Your task to perform on an android device: What's the weather going to be this weekend? Image 0: 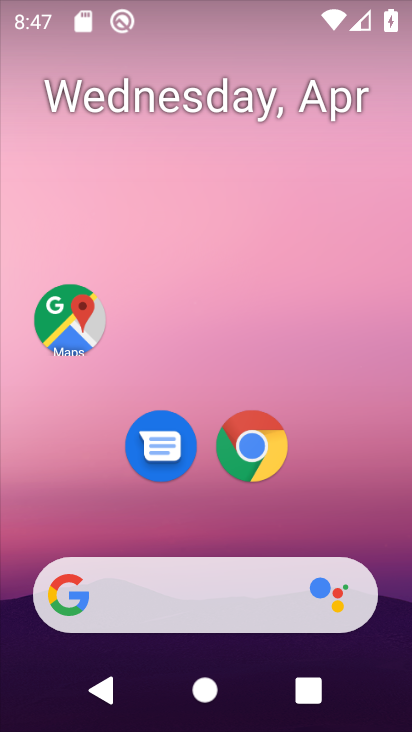
Step 0: drag from (375, 508) to (352, 178)
Your task to perform on an android device: What's the weather going to be this weekend? Image 1: 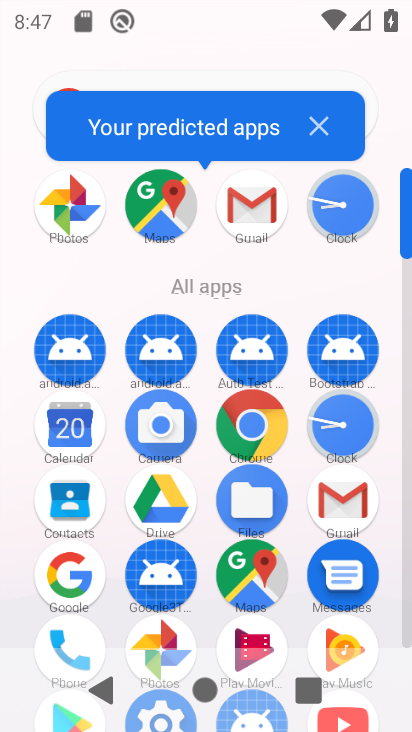
Step 1: click (259, 437)
Your task to perform on an android device: What's the weather going to be this weekend? Image 2: 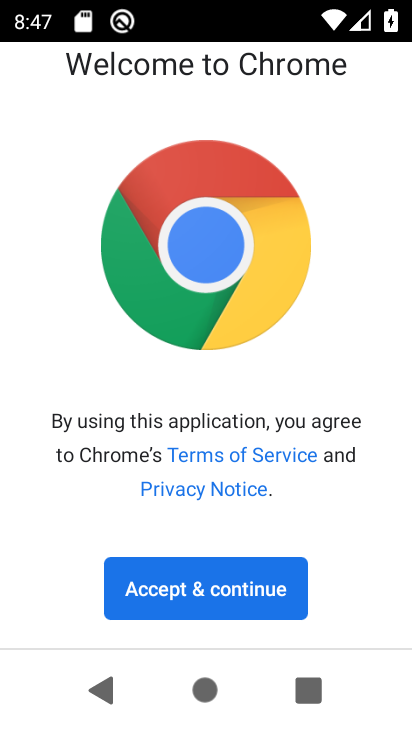
Step 2: click (243, 583)
Your task to perform on an android device: What's the weather going to be this weekend? Image 3: 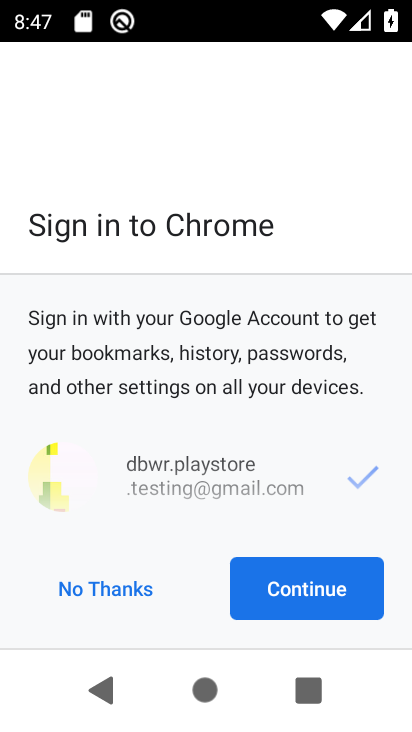
Step 3: click (286, 593)
Your task to perform on an android device: What's the weather going to be this weekend? Image 4: 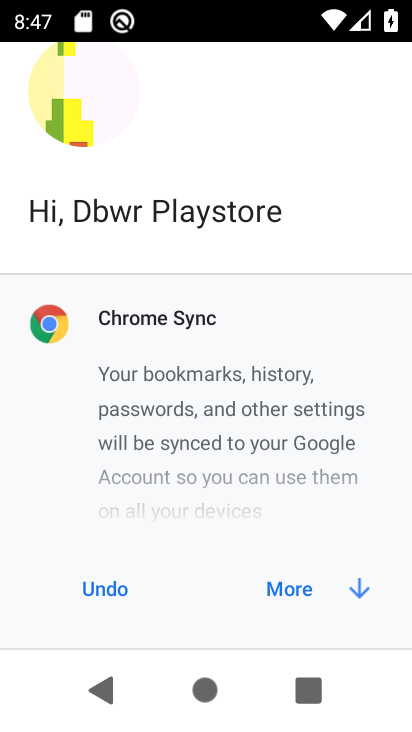
Step 4: click (287, 592)
Your task to perform on an android device: What's the weather going to be this weekend? Image 5: 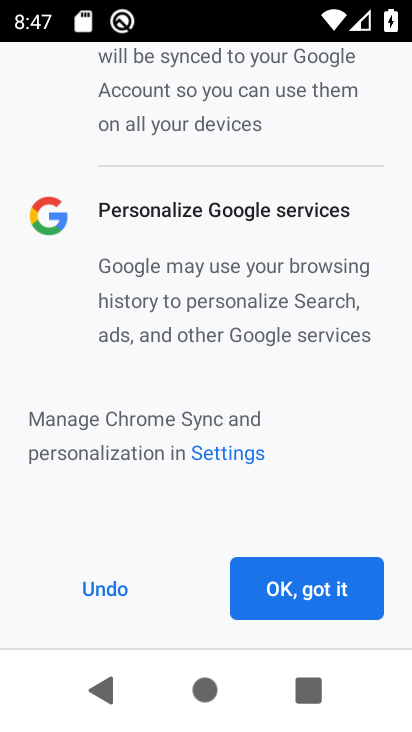
Step 5: click (287, 592)
Your task to perform on an android device: What's the weather going to be this weekend? Image 6: 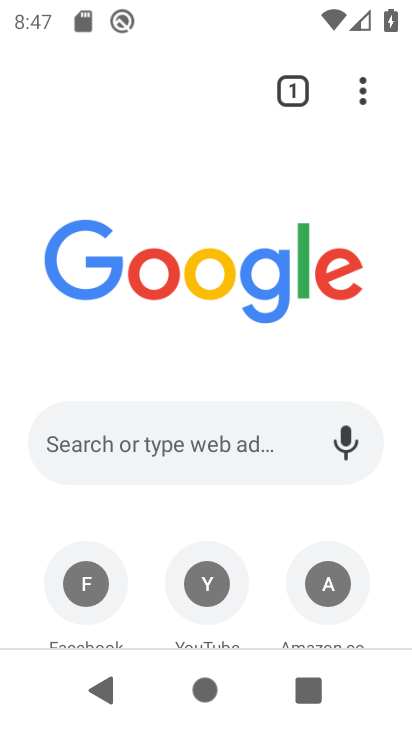
Step 6: click (189, 450)
Your task to perform on an android device: What's the weather going to be this weekend? Image 7: 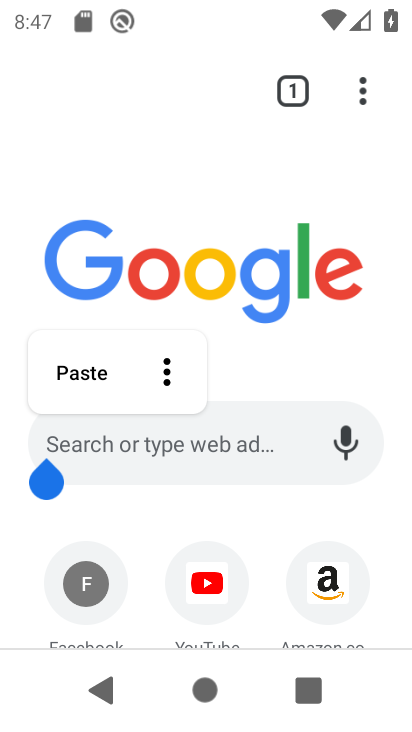
Step 7: click (226, 461)
Your task to perform on an android device: What's the weather going to be this weekend? Image 8: 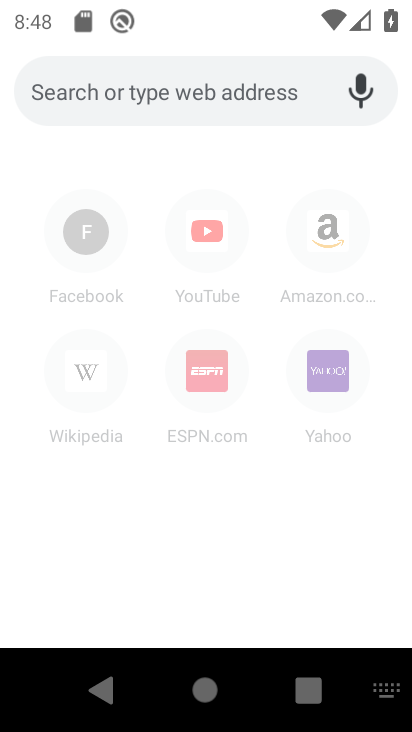
Step 8: click (162, 91)
Your task to perform on an android device: What's the weather going to be this weekend? Image 9: 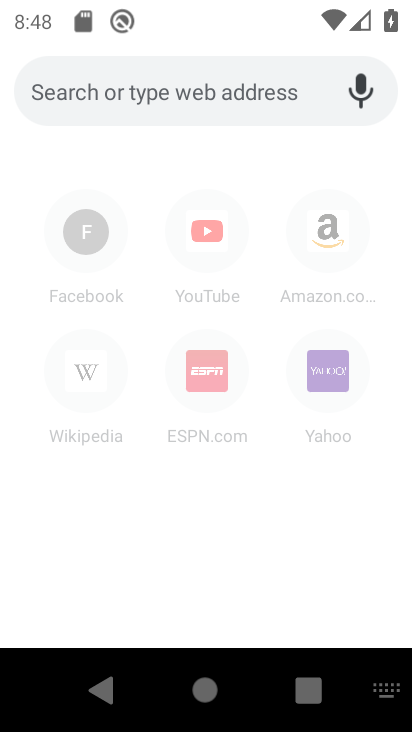
Step 9: type "what's the weather going to be this weekend"
Your task to perform on an android device: What's the weather going to be this weekend? Image 10: 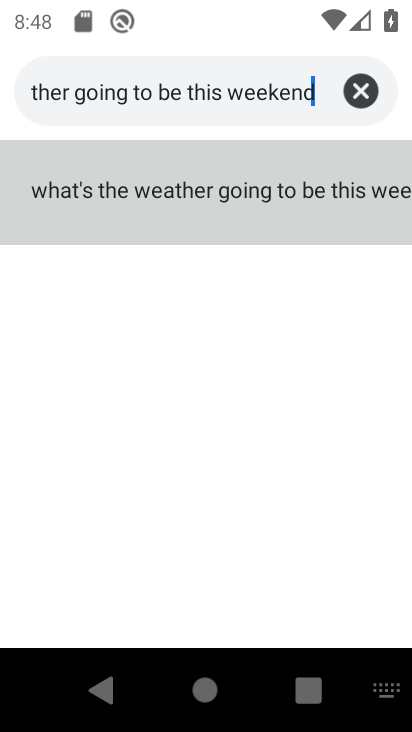
Step 10: click (269, 199)
Your task to perform on an android device: What's the weather going to be this weekend? Image 11: 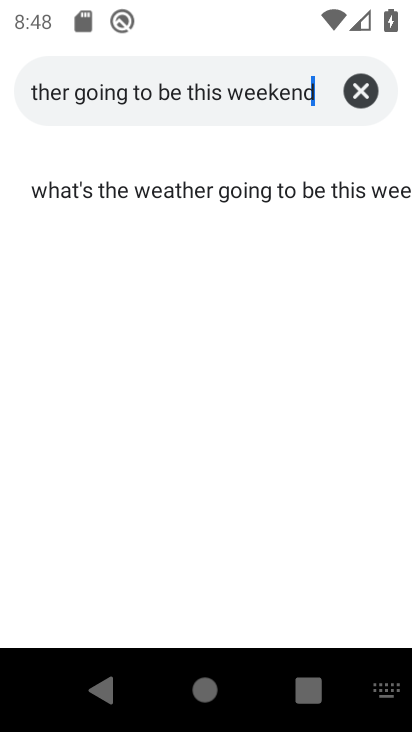
Step 11: click (263, 205)
Your task to perform on an android device: What's the weather going to be this weekend? Image 12: 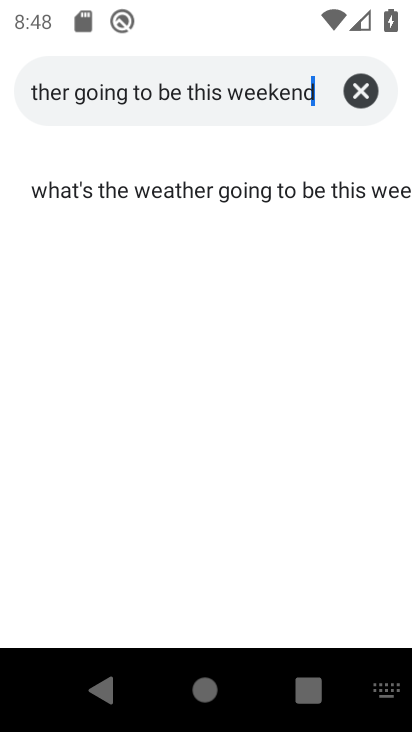
Step 12: click (255, 207)
Your task to perform on an android device: What's the weather going to be this weekend? Image 13: 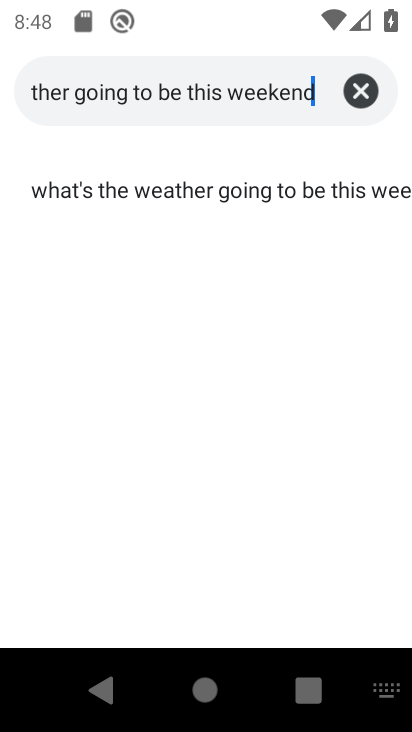
Step 13: click (252, 196)
Your task to perform on an android device: What's the weather going to be this weekend? Image 14: 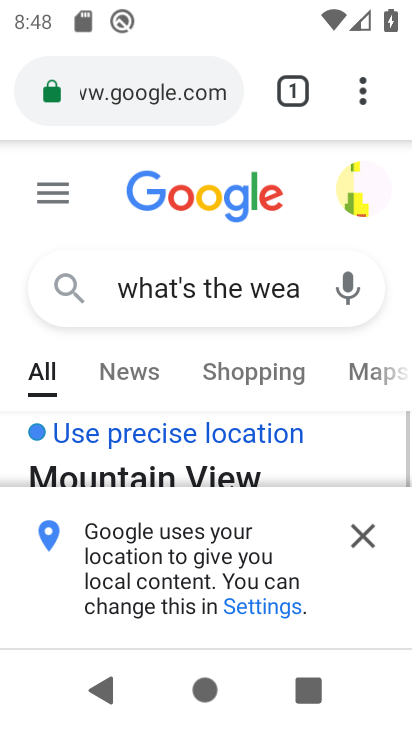
Step 14: task complete